Your task to perform on an android device: Go to Yahoo.com Image 0: 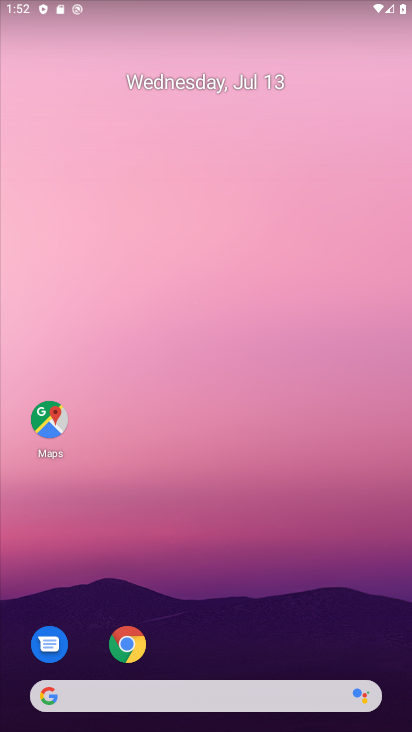
Step 0: click (121, 653)
Your task to perform on an android device: Go to Yahoo.com Image 1: 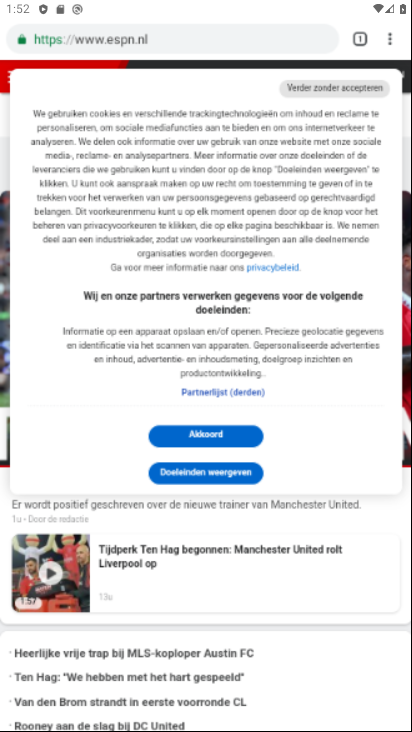
Step 1: click (354, 35)
Your task to perform on an android device: Go to Yahoo.com Image 2: 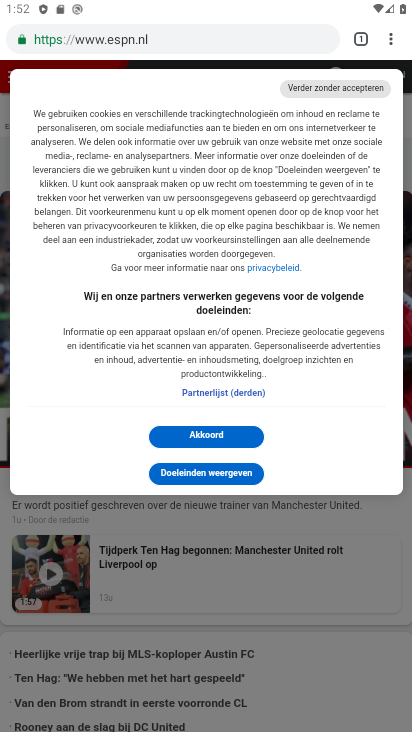
Step 2: click (360, 36)
Your task to perform on an android device: Go to Yahoo.com Image 3: 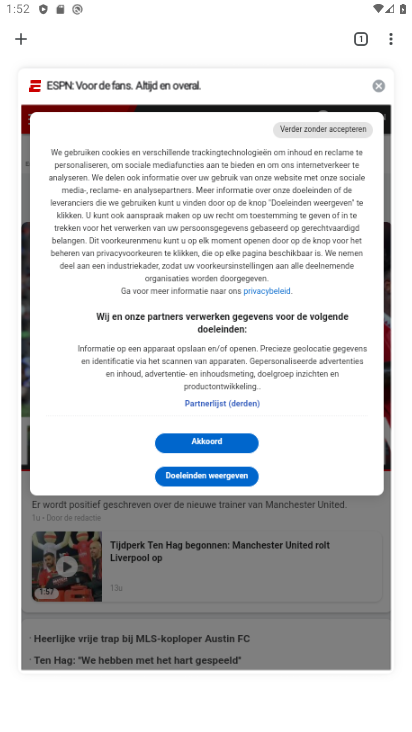
Step 3: click (11, 31)
Your task to perform on an android device: Go to Yahoo.com Image 4: 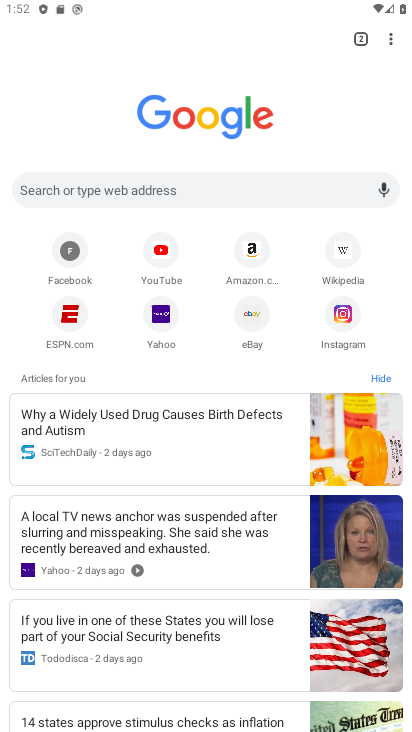
Step 4: click (168, 316)
Your task to perform on an android device: Go to Yahoo.com Image 5: 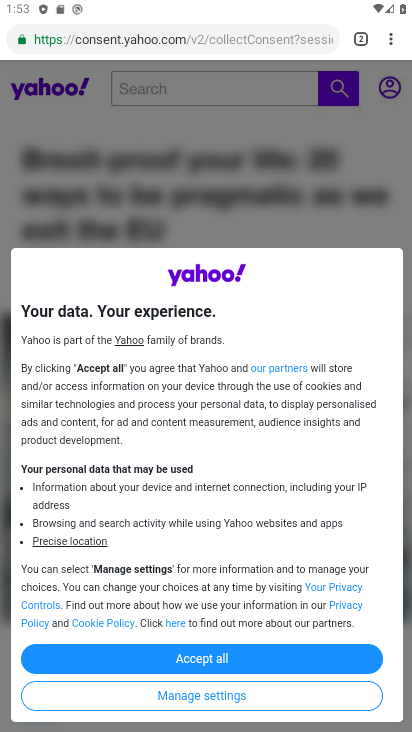
Step 5: task complete